Your task to perform on an android device: turn smart compose on in the gmail app Image 0: 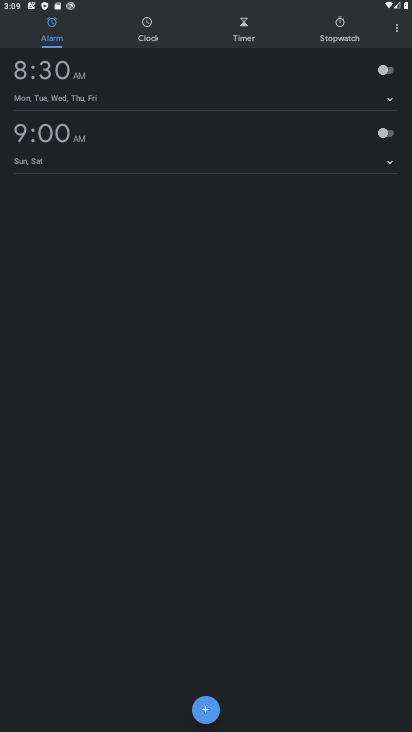
Step 0: press home button
Your task to perform on an android device: turn smart compose on in the gmail app Image 1: 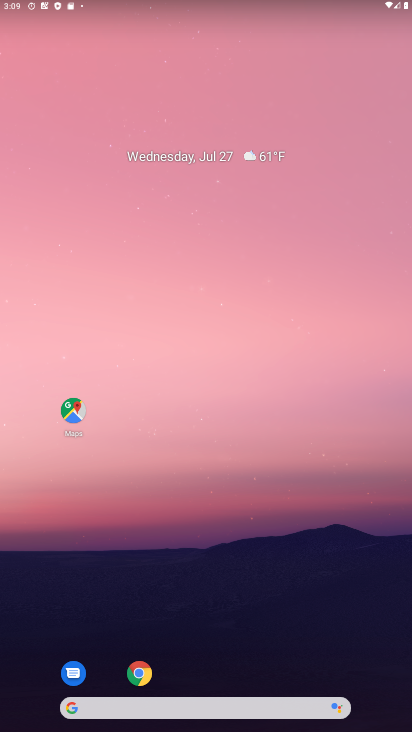
Step 1: drag from (37, 647) to (267, 7)
Your task to perform on an android device: turn smart compose on in the gmail app Image 2: 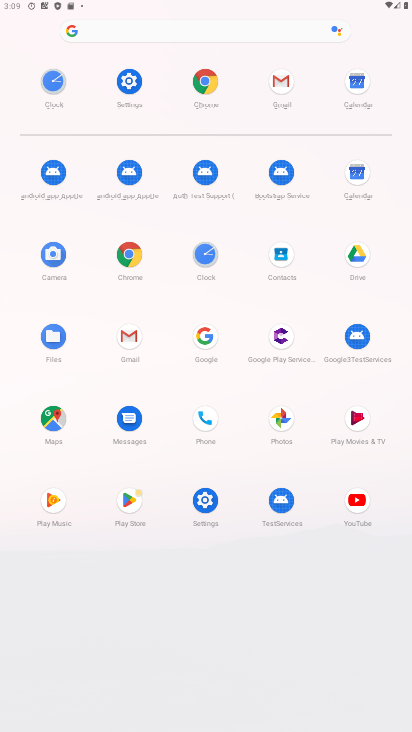
Step 2: click (120, 336)
Your task to perform on an android device: turn smart compose on in the gmail app Image 3: 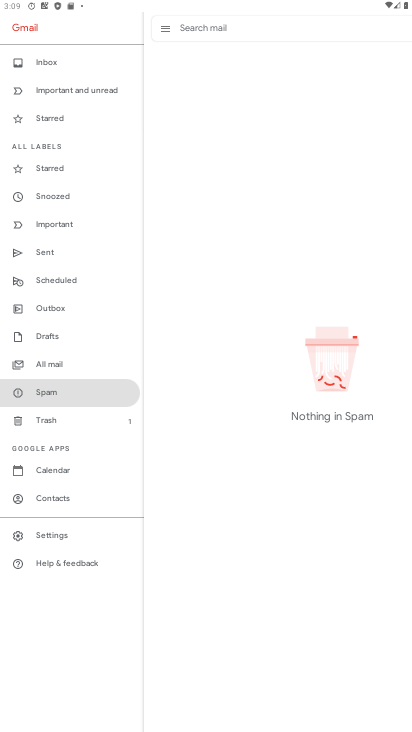
Step 3: click (54, 539)
Your task to perform on an android device: turn smart compose on in the gmail app Image 4: 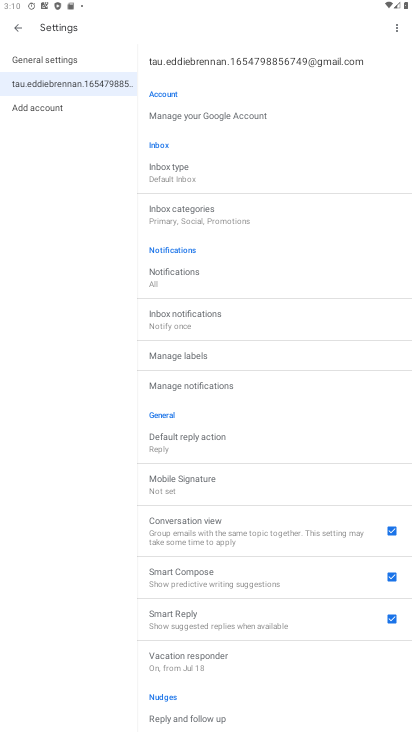
Step 4: task complete